Your task to perform on an android device: turn off smart reply in the gmail app Image 0: 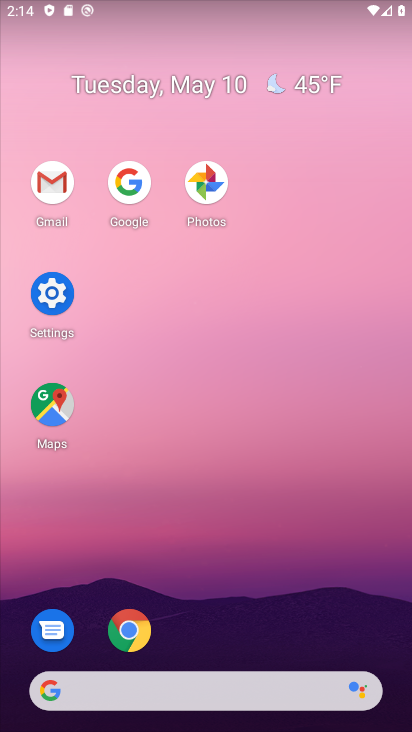
Step 0: click (50, 191)
Your task to perform on an android device: turn off smart reply in the gmail app Image 1: 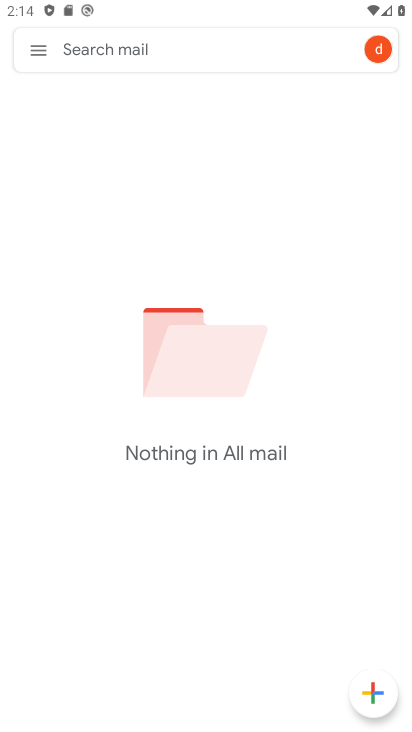
Step 1: click (35, 47)
Your task to perform on an android device: turn off smart reply in the gmail app Image 2: 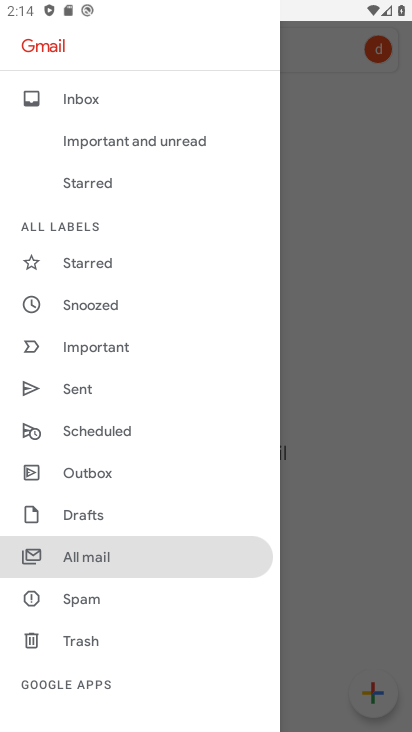
Step 2: drag from (133, 618) to (107, 227)
Your task to perform on an android device: turn off smart reply in the gmail app Image 3: 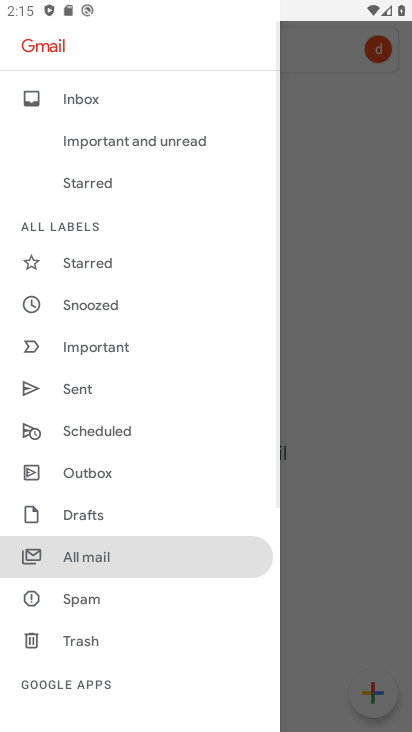
Step 3: drag from (146, 607) to (161, 237)
Your task to perform on an android device: turn off smart reply in the gmail app Image 4: 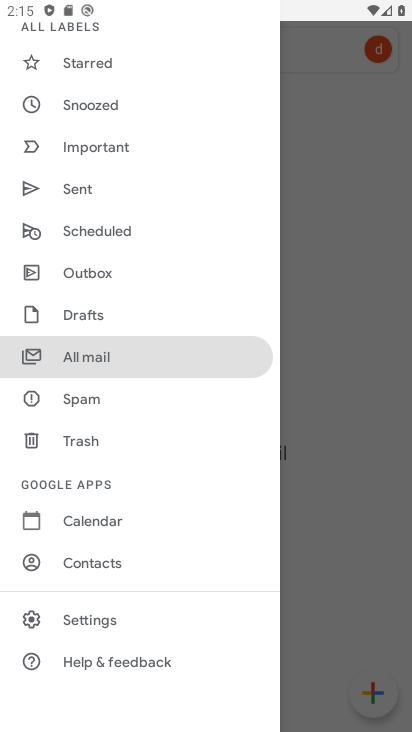
Step 4: click (115, 613)
Your task to perform on an android device: turn off smart reply in the gmail app Image 5: 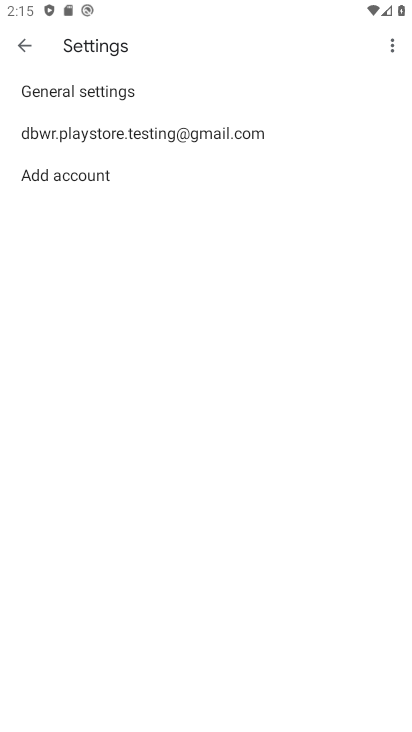
Step 5: click (112, 132)
Your task to perform on an android device: turn off smart reply in the gmail app Image 6: 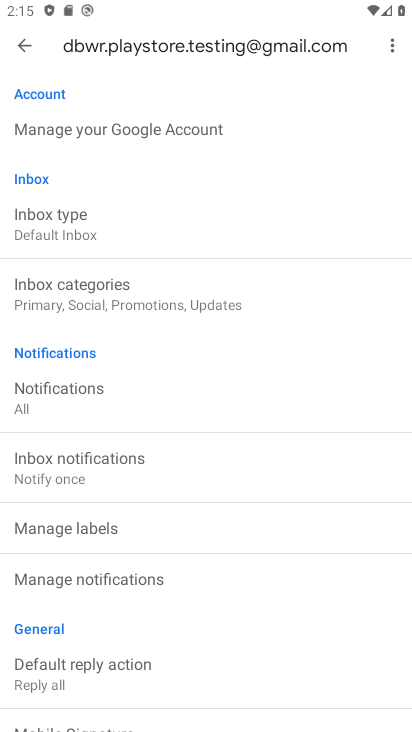
Step 6: drag from (174, 659) to (216, 214)
Your task to perform on an android device: turn off smart reply in the gmail app Image 7: 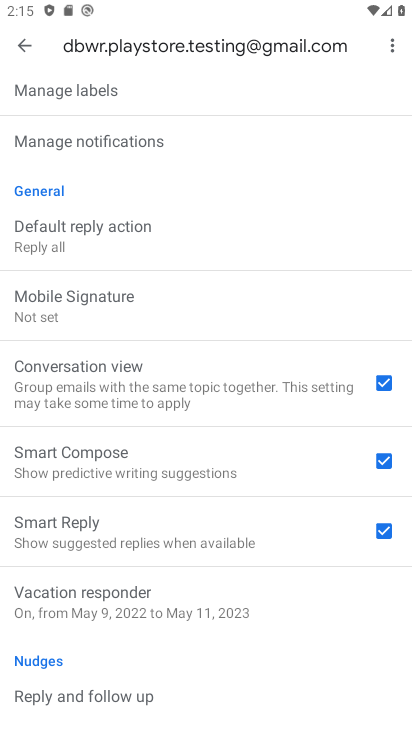
Step 7: click (385, 462)
Your task to perform on an android device: turn off smart reply in the gmail app Image 8: 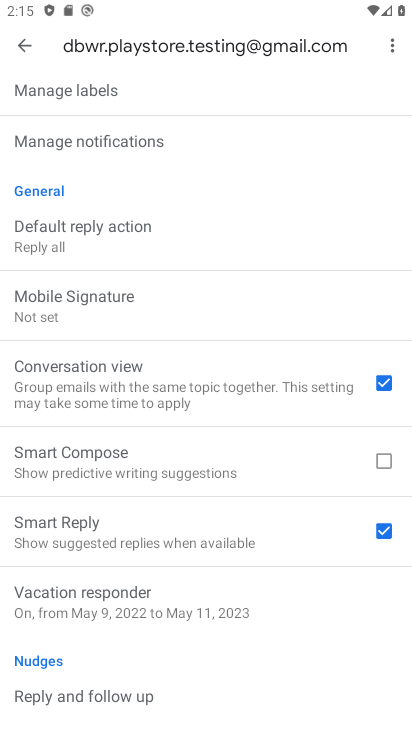
Step 8: task complete